Your task to perform on an android device: Clear the shopping cart on bestbuy. Add "dell alienware" to the cart on bestbuy Image 0: 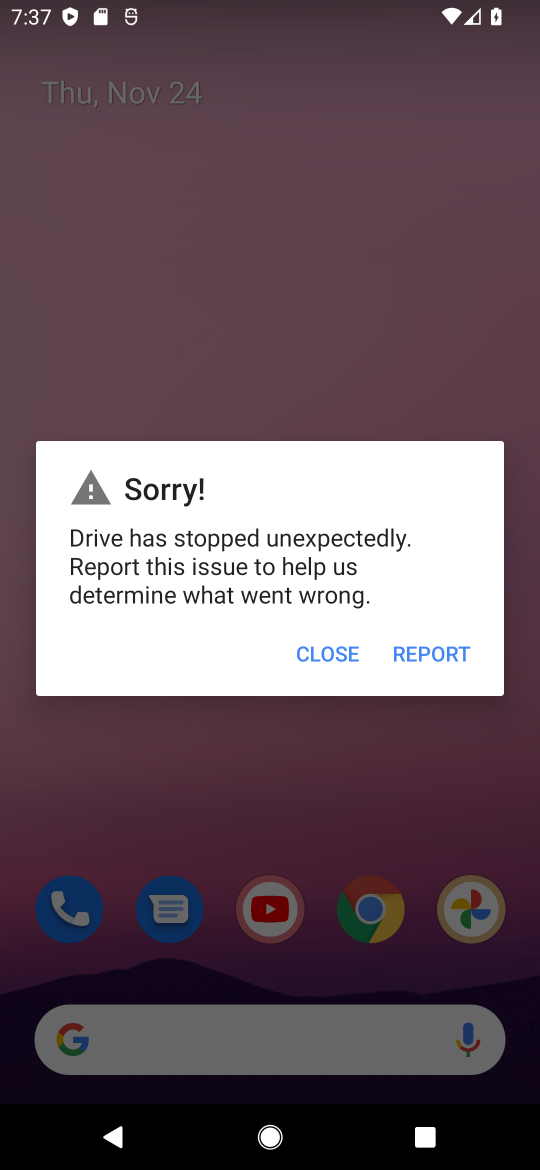
Step 0: press home button
Your task to perform on an android device: Clear the shopping cart on bestbuy. Add "dell alienware" to the cart on bestbuy Image 1: 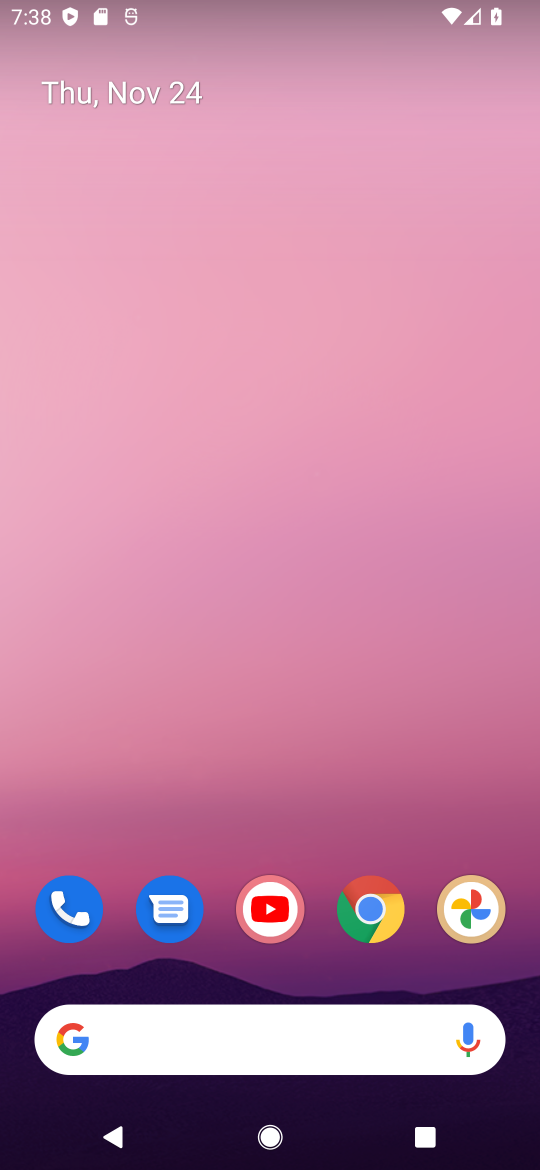
Step 1: click (353, 942)
Your task to perform on an android device: Clear the shopping cart on bestbuy. Add "dell alienware" to the cart on bestbuy Image 2: 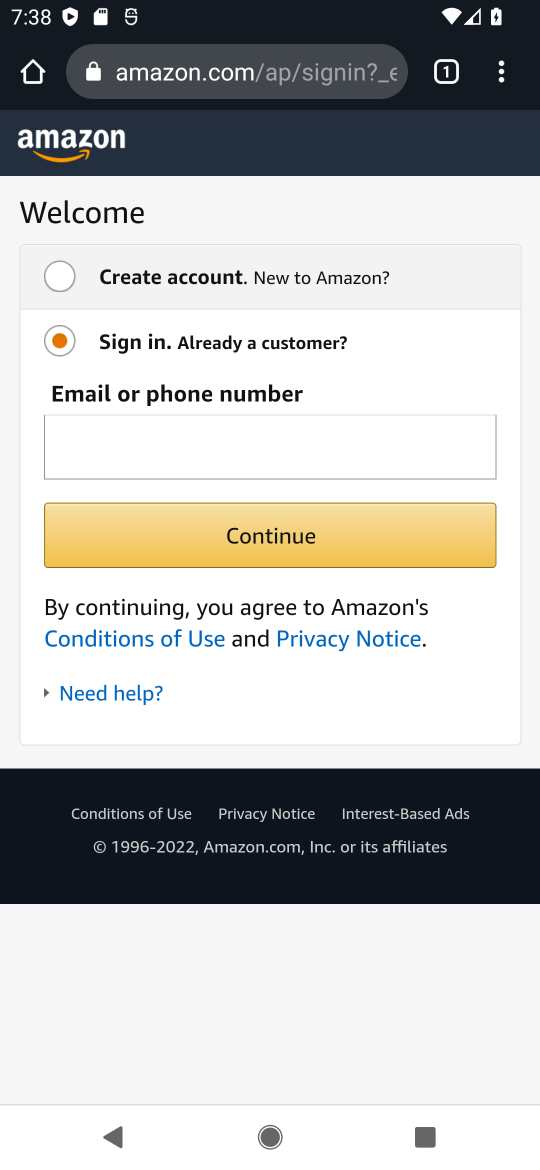
Step 2: click (222, 81)
Your task to perform on an android device: Clear the shopping cart on bestbuy. Add "dell alienware" to the cart on bestbuy Image 3: 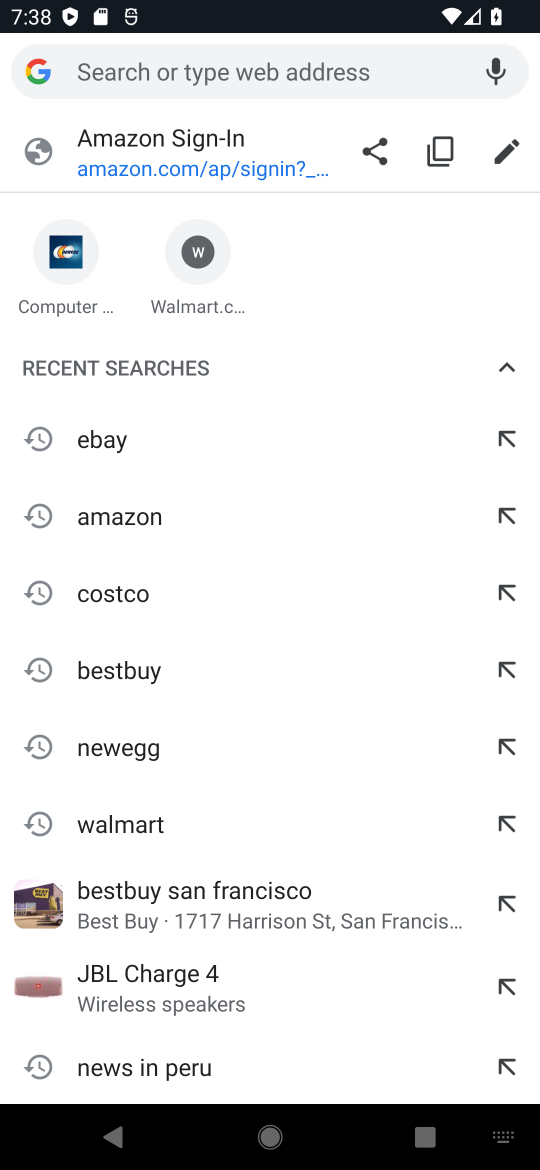
Step 3: type "bestbuy"
Your task to perform on an android device: Clear the shopping cart on bestbuy. Add "dell alienware" to the cart on bestbuy Image 4: 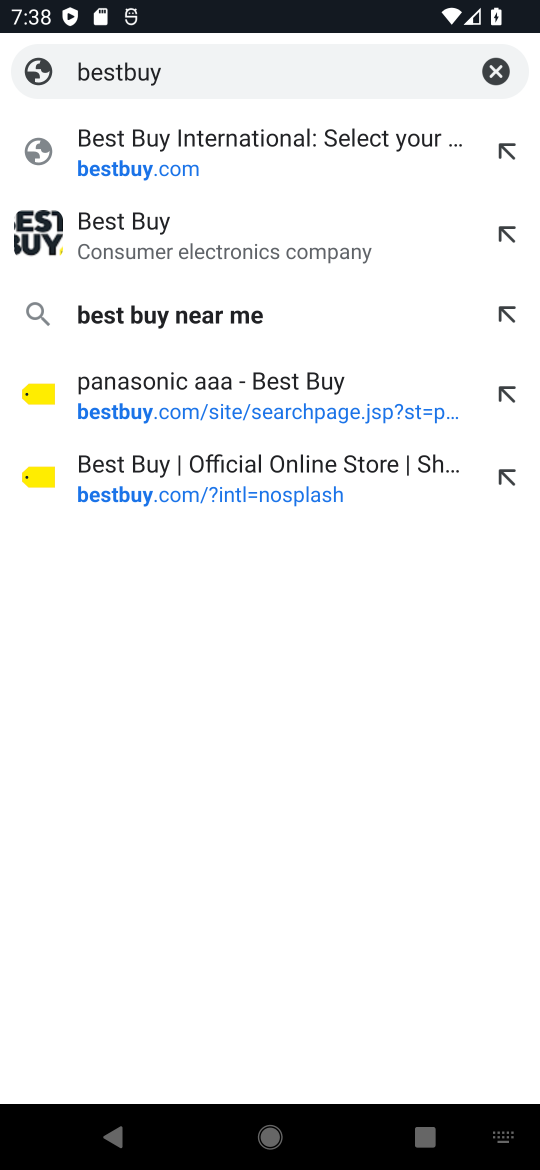
Step 4: click (275, 153)
Your task to perform on an android device: Clear the shopping cart on bestbuy. Add "dell alienware" to the cart on bestbuy Image 5: 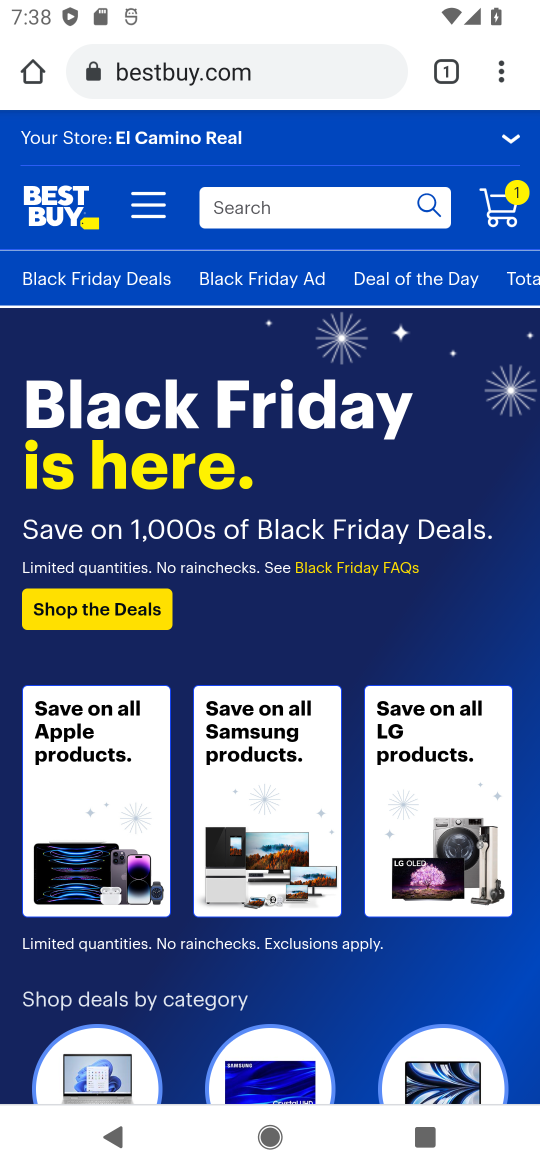
Step 5: click (340, 219)
Your task to perform on an android device: Clear the shopping cart on bestbuy. Add "dell alienware" to the cart on bestbuy Image 6: 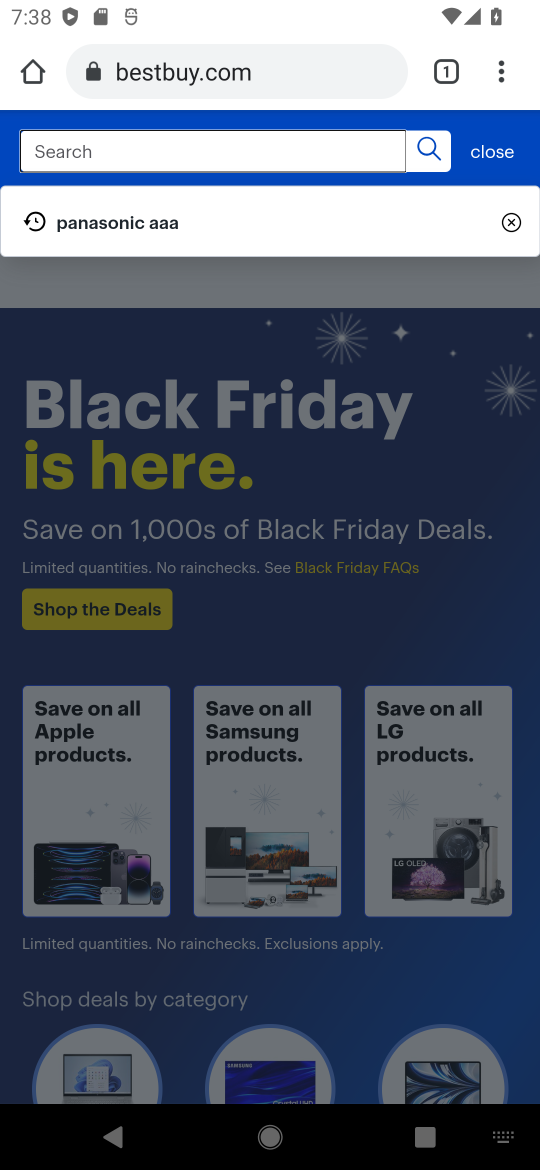
Step 6: click (506, 159)
Your task to perform on an android device: Clear the shopping cart on bestbuy. Add "dell alienware" to the cart on bestbuy Image 7: 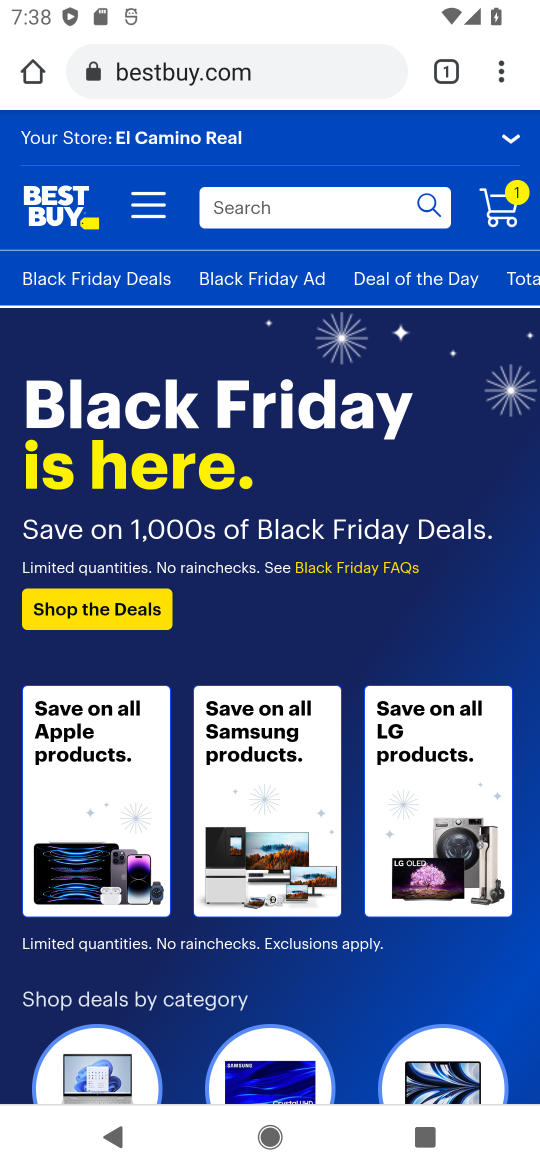
Step 7: click (514, 204)
Your task to perform on an android device: Clear the shopping cart on bestbuy. Add "dell alienware" to the cart on bestbuy Image 8: 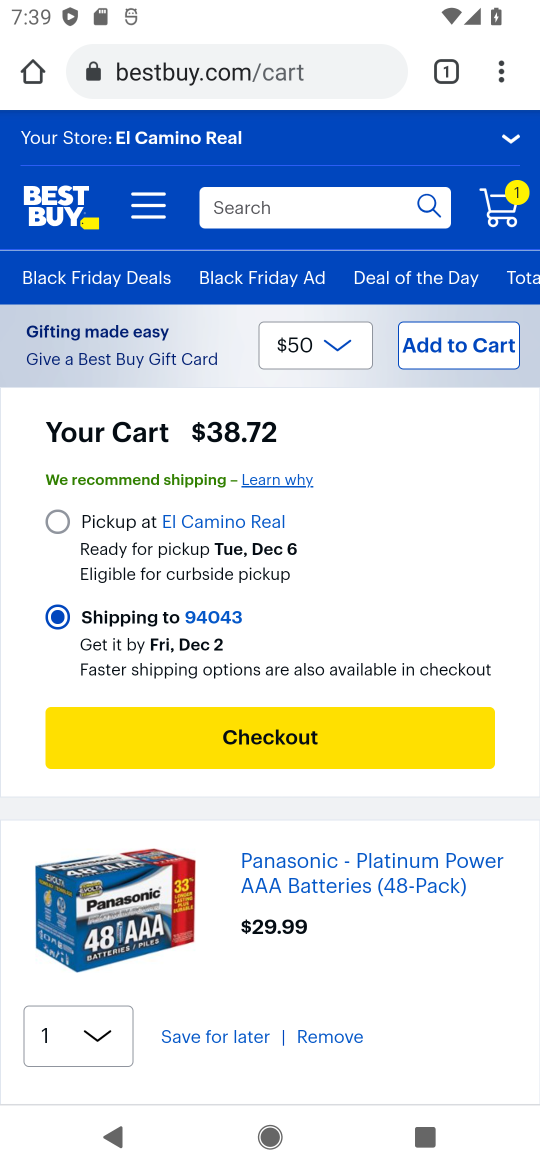
Step 8: click (345, 1032)
Your task to perform on an android device: Clear the shopping cart on bestbuy. Add "dell alienware" to the cart on bestbuy Image 9: 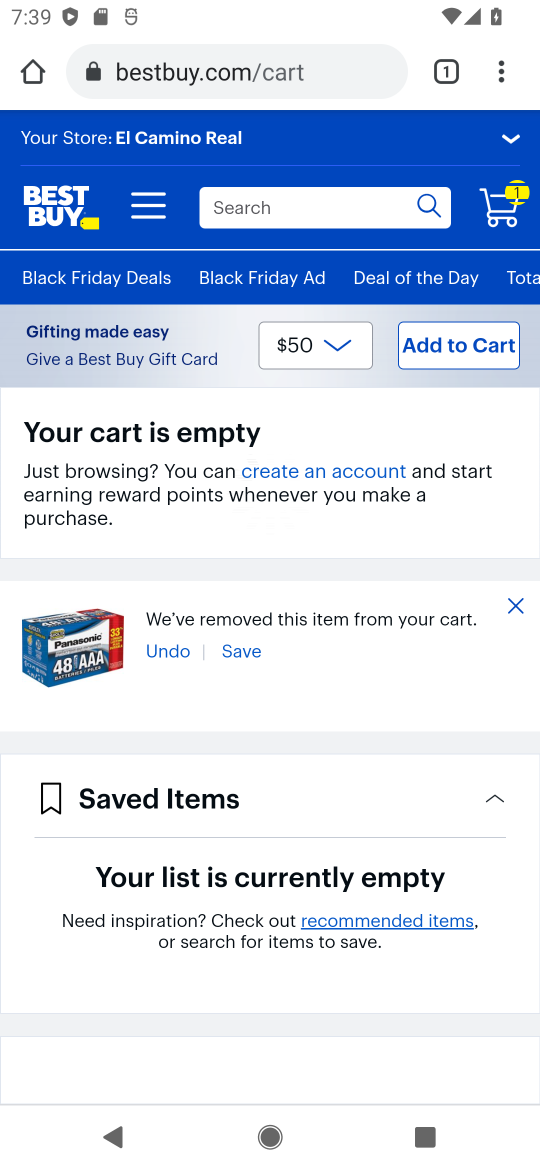
Step 9: click (323, 227)
Your task to perform on an android device: Clear the shopping cart on bestbuy. Add "dell alienware" to the cart on bestbuy Image 10: 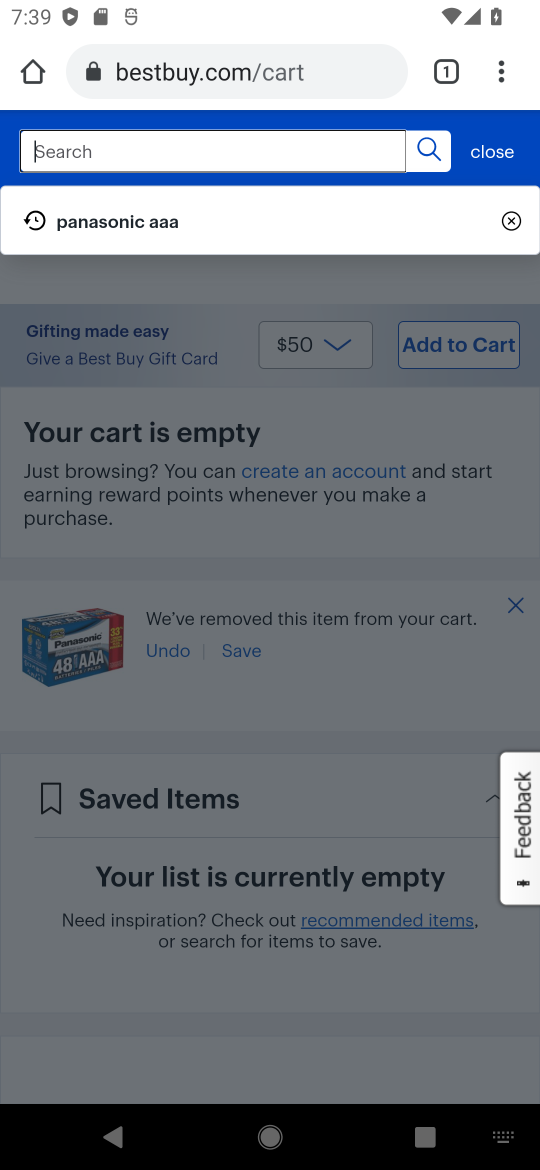
Step 10: type "dell alienware"
Your task to perform on an android device: Clear the shopping cart on bestbuy. Add "dell alienware" to the cart on bestbuy Image 11: 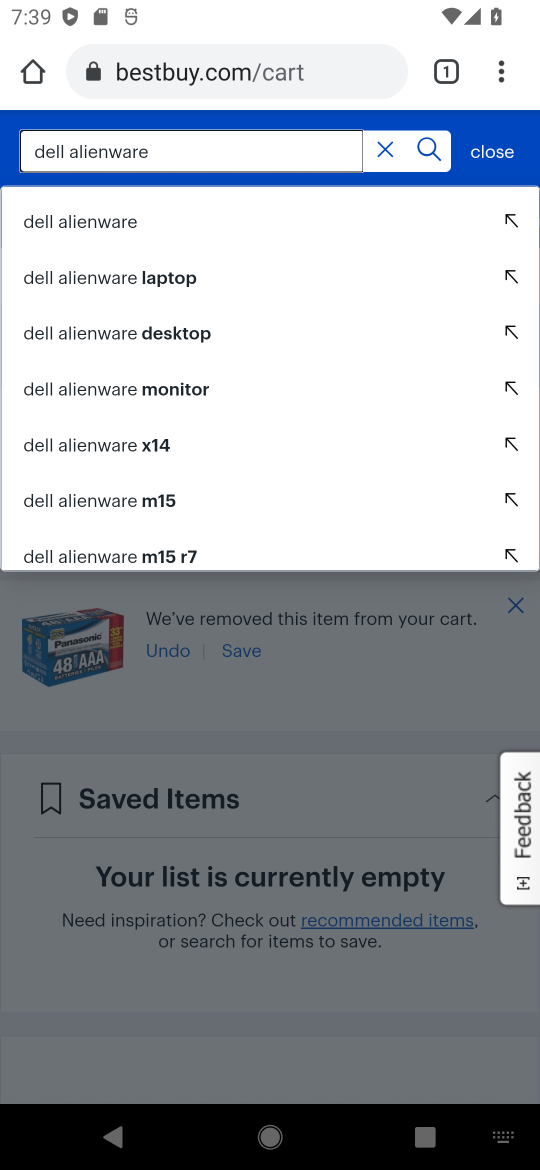
Step 11: click (159, 223)
Your task to perform on an android device: Clear the shopping cart on bestbuy. Add "dell alienware" to the cart on bestbuy Image 12: 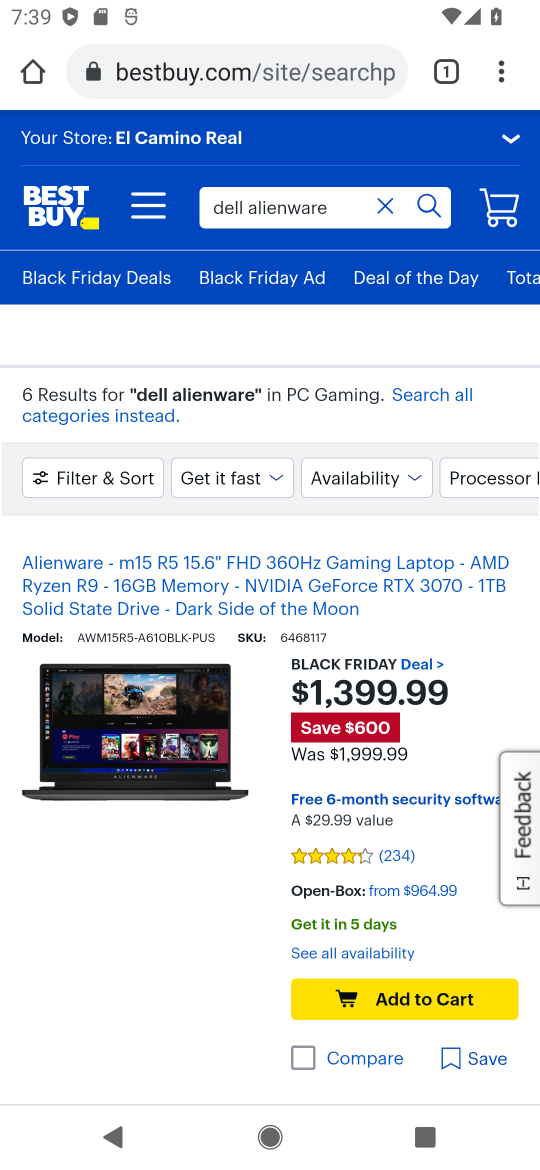
Step 12: click (430, 1003)
Your task to perform on an android device: Clear the shopping cart on bestbuy. Add "dell alienware" to the cart on bestbuy Image 13: 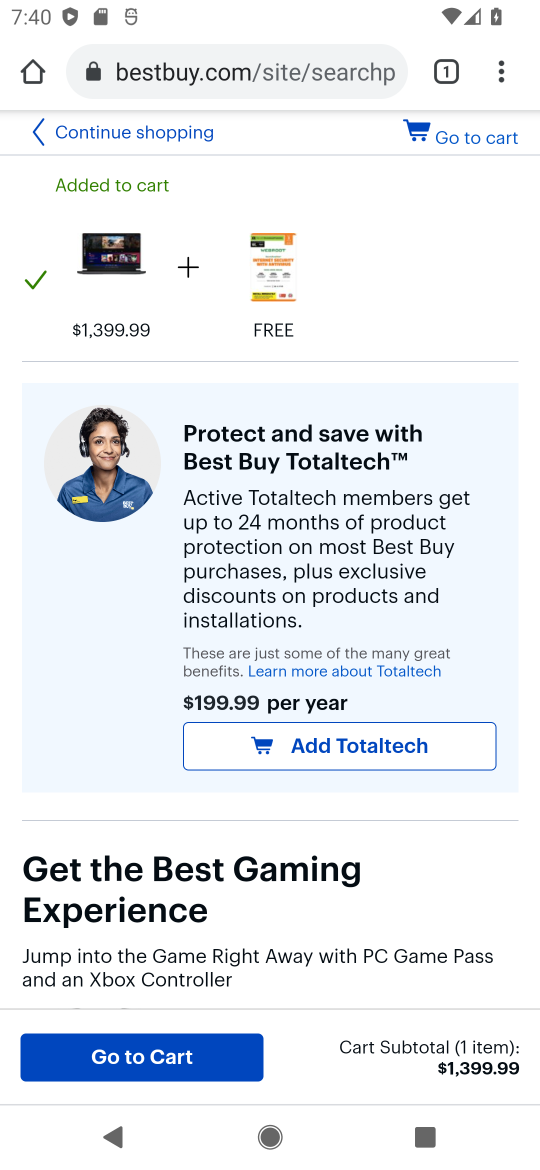
Step 13: task complete